Your task to perform on an android device: Search for bose soundsport free on amazon, select the first entry, and add it to the cart. Image 0: 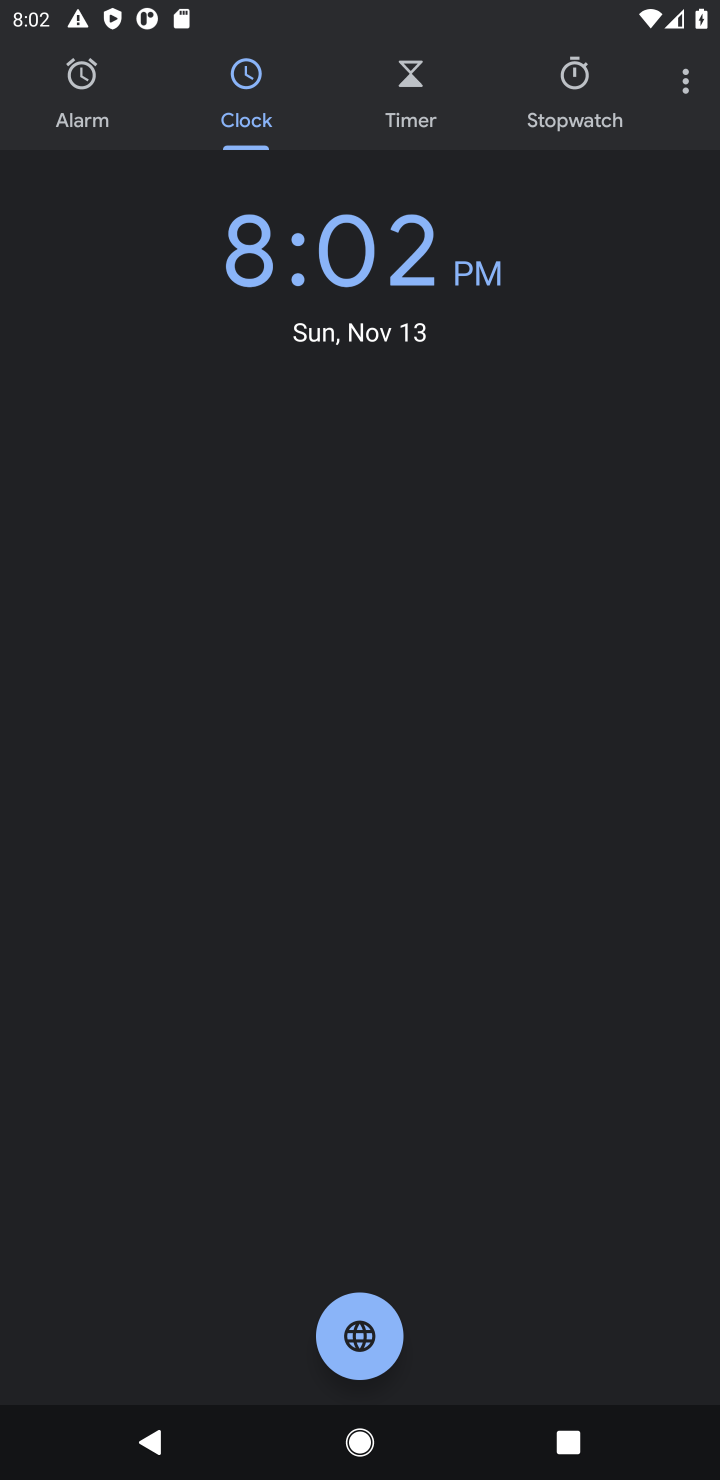
Step 0: task complete